Your task to perform on an android device: turn smart compose on in the gmail app Image 0: 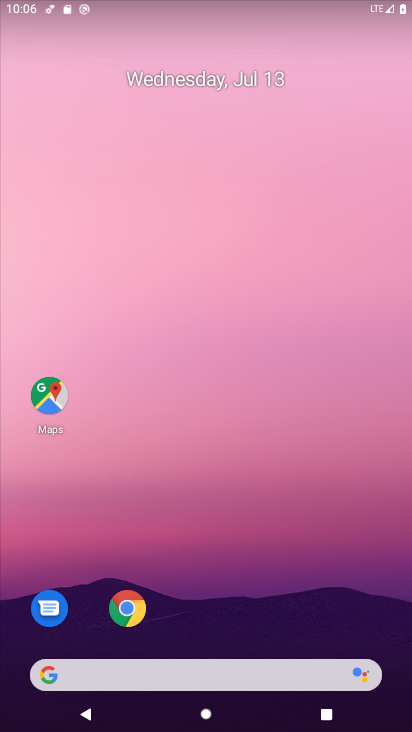
Step 0: drag from (267, 575) to (227, 84)
Your task to perform on an android device: turn smart compose on in the gmail app Image 1: 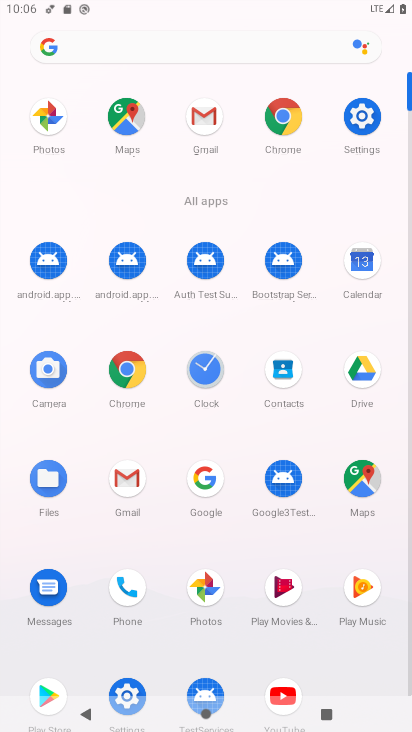
Step 1: click (202, 112)
Your task to perform on an android device: turn smart compose on in the gmail app Image 2: 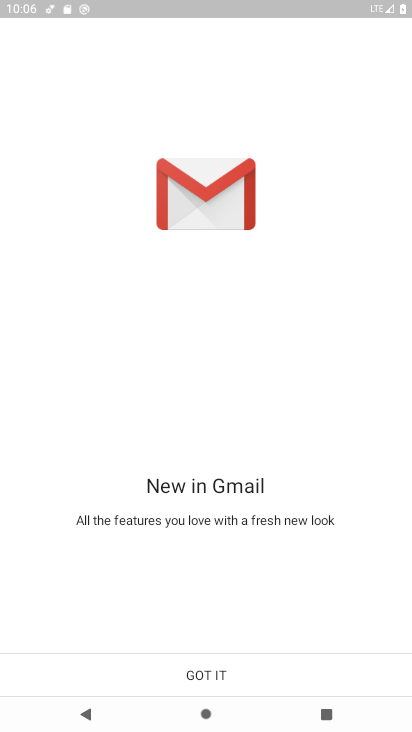
Step 2: click (204, 670)
Your task to perform on an android device: turn smart compose on in the gmail app Image 3: 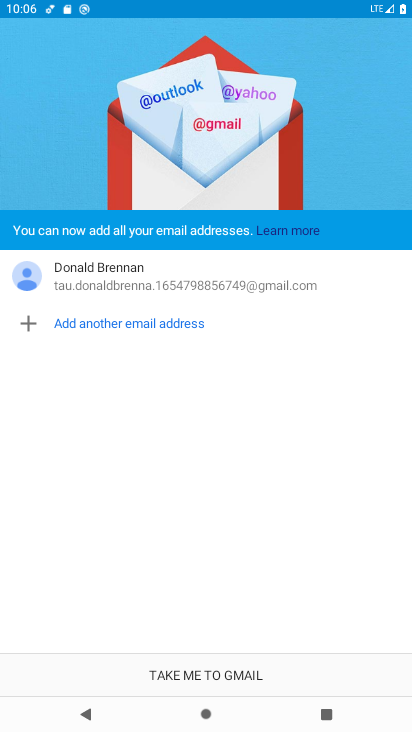
Step 3: click (204, 670)
Your task to perform on an android device: turn smart compose on in the gmail app Image 4: 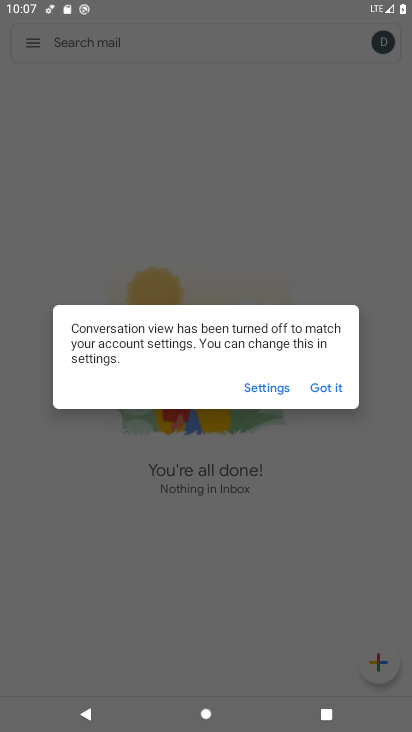
Step 4: click (317, 381)
Your task to perform on an android device: turn smart compose on in the gmail app Image 5: 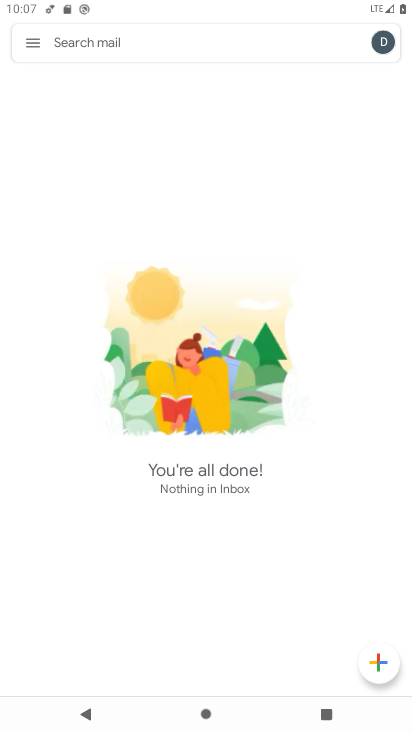
Step 5: click (30, 39)
Your task to perform on an android device: turn smart compose on in the gmail app Image 6: 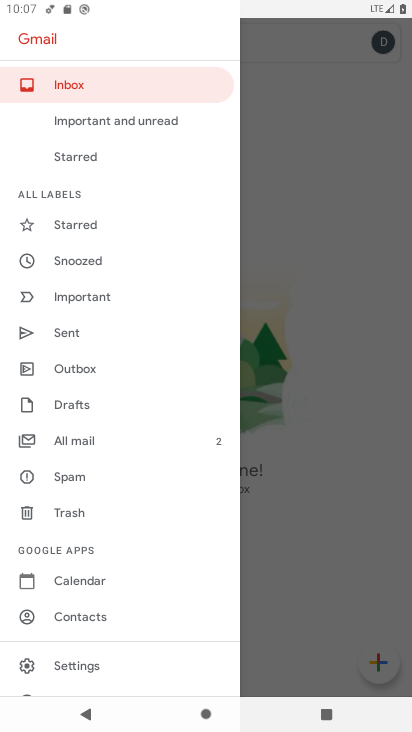
Step 6: click (71, 666)
Your task to perform on an android device: turn smart compose on in the gmail app Image 7: 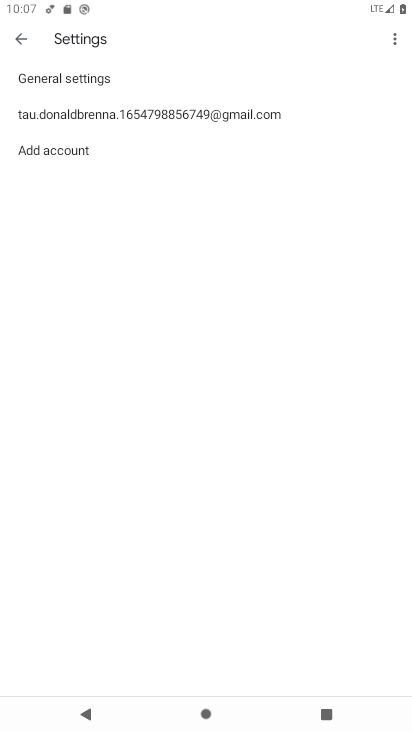
Step 7: click (90, 112)
Your task to perform on an android device: turn smart compose on in the gmail app Image 8: 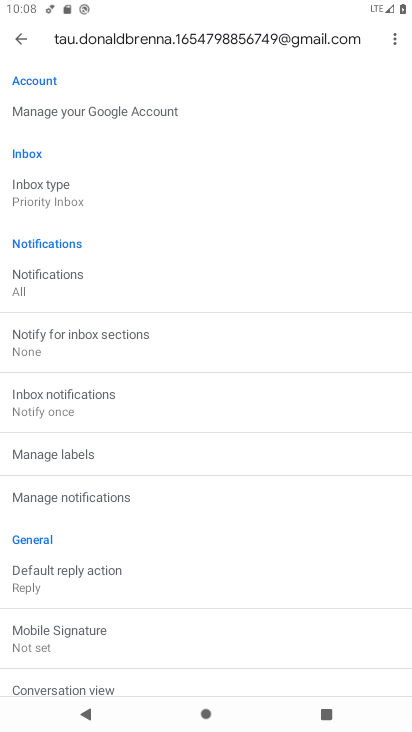
Step 8: task complete